Your task to perform on an android device: What's the weather going to be tomorrow? Image 0: 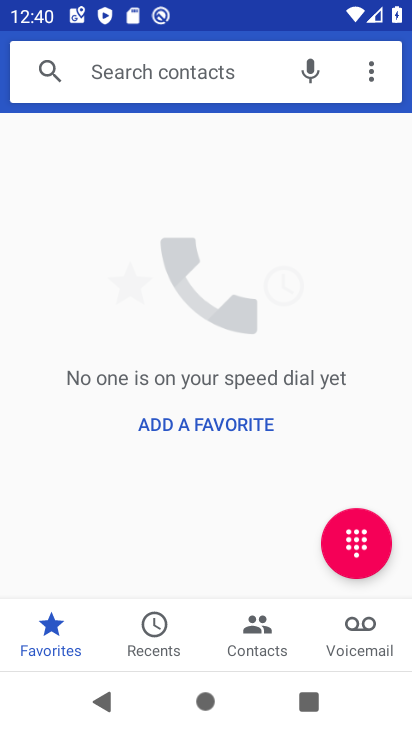
Step 0: press home button
Your task to perform on an android device: What's the weather going to be tomorrow? Image 1: 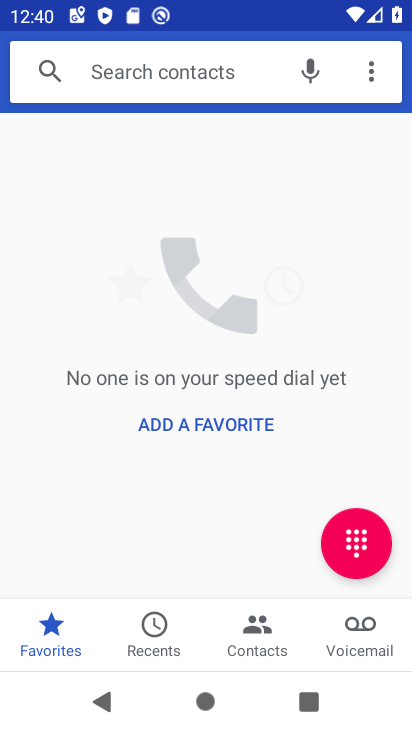
Step 1: press home button
Your task to perform on an android device: What's the weather going to be tomorrow? Image 2: 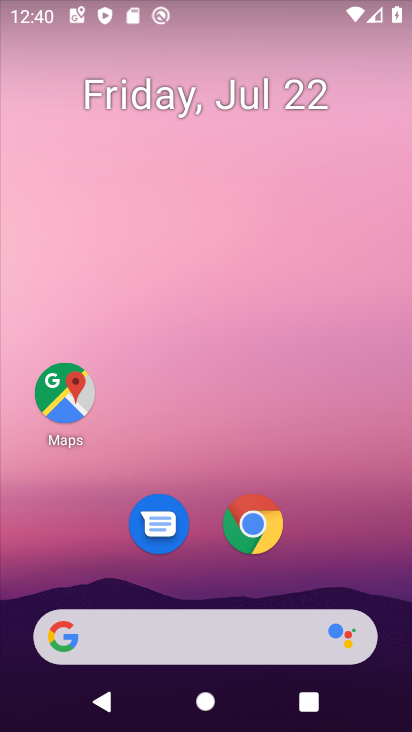
Step 2: drag from (312, 580) to (350, 69)
Your task to perform on an android device: What's the weather going to be tomorrow? Image 3: 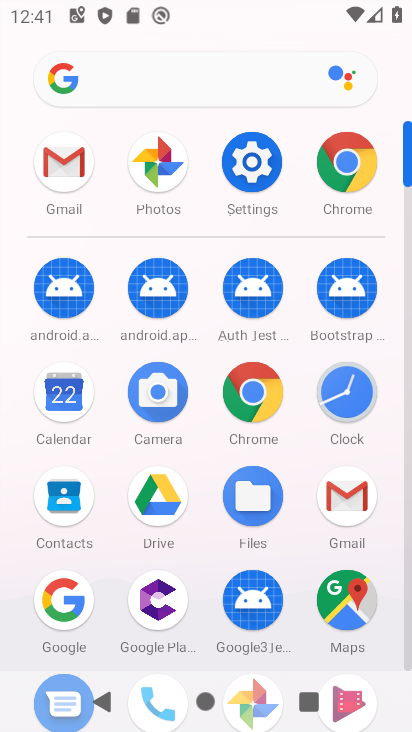
Step 3: click (63, 604)
Your task to perform on an android device: What's the weather going to be tomorrow? Image 4: 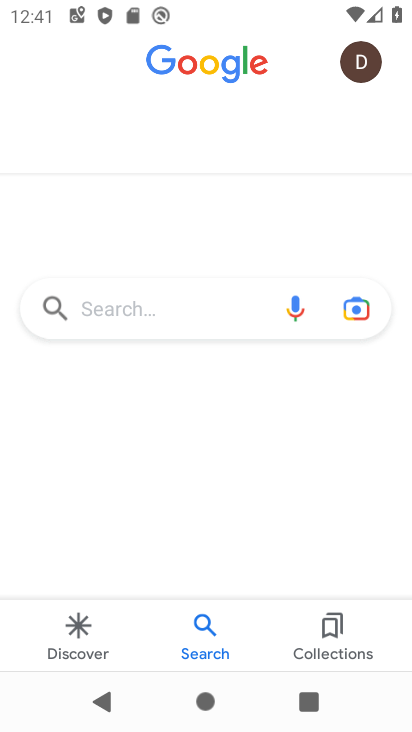
Step 4: click (173, 320)
Your task to perform on an android device: What's the weather going to be tomorrow? Image 5: 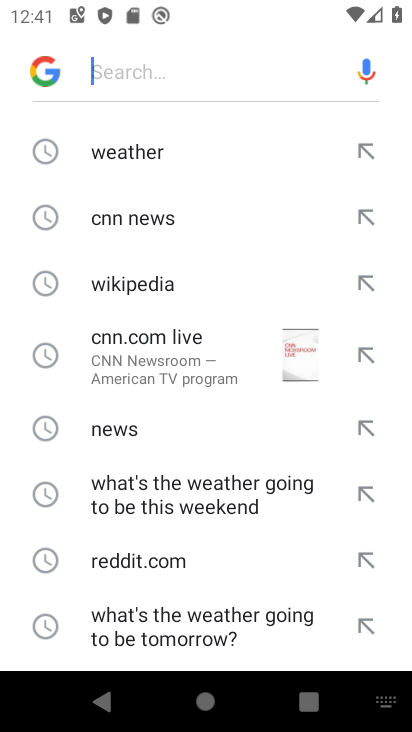
Step 5: click (145, 145)
Your task to perform on an android device: What's the weather going to be tomorrow? Image 6: 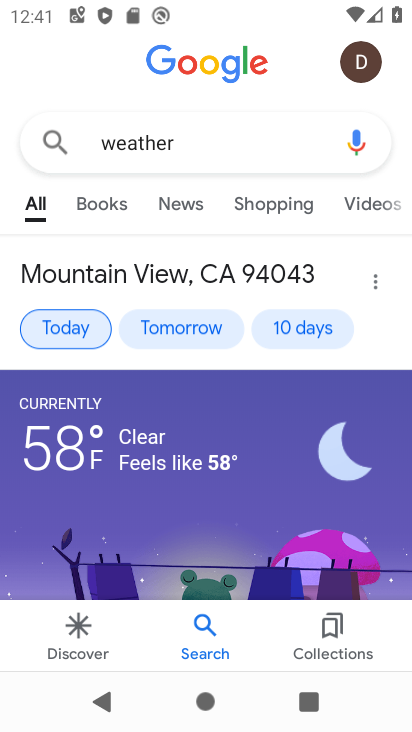
Step 6: click (177, 328)
Your task to perform on an android device: What's the weather going to be tomorrow? Image 7: 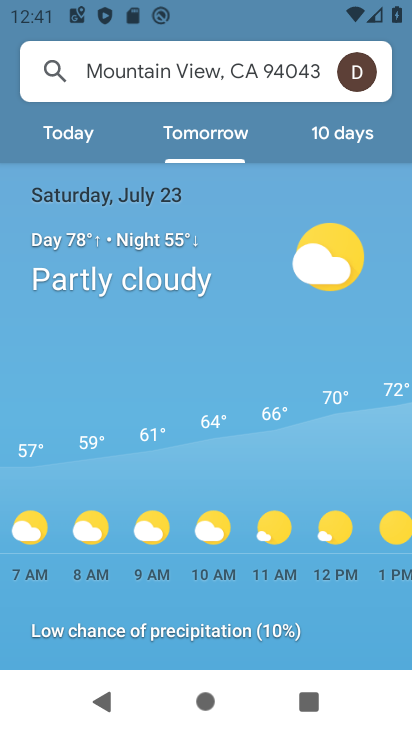
Step 7: task complete